Your task to perform on an android device: See recent photos Image 0: 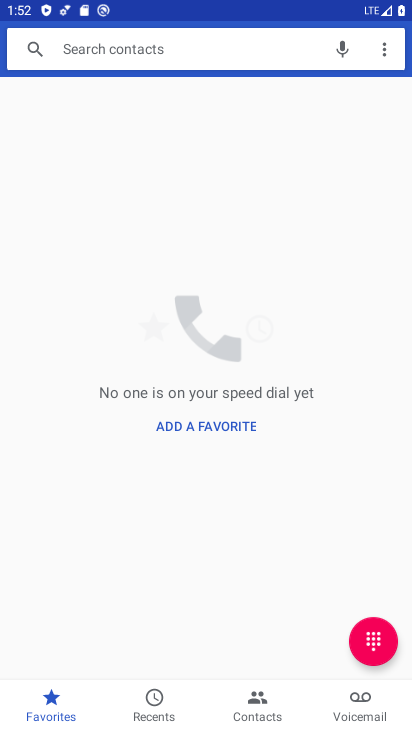
Step 0: press back button
Your task to perform on an android device: See recent photos Image 1: 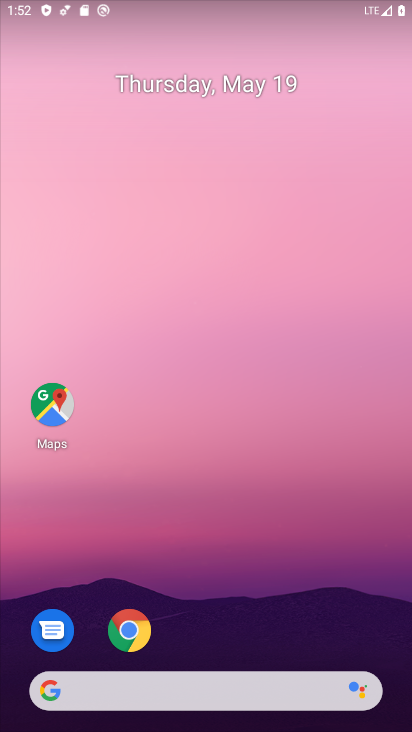
Step 1: drag from (252, 545) to (208, 10)
Your task to perform on an android device: See recent photos Image 2: 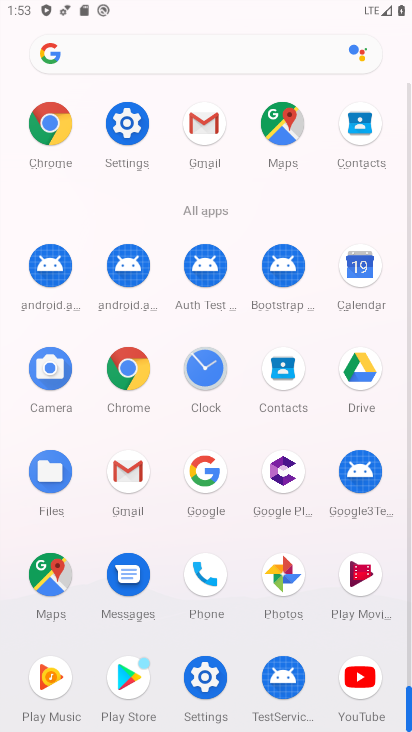
Step 2: click (286, 575)
Your task to perform on an android device: See recent photos Image 3: 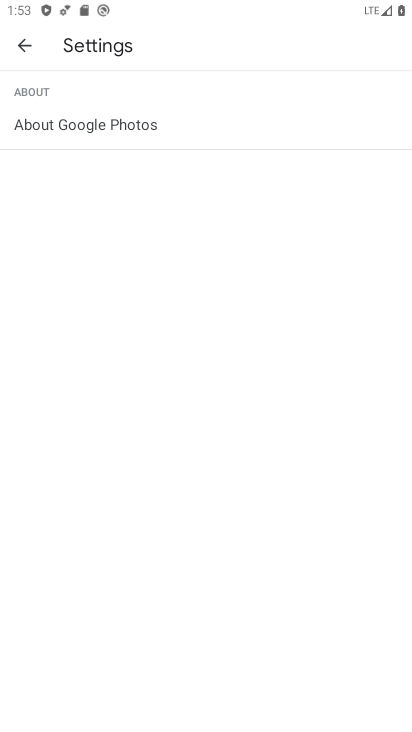
Step 3: click (11, 45)
Your task to perform on an android device: See recent photos Image 4: 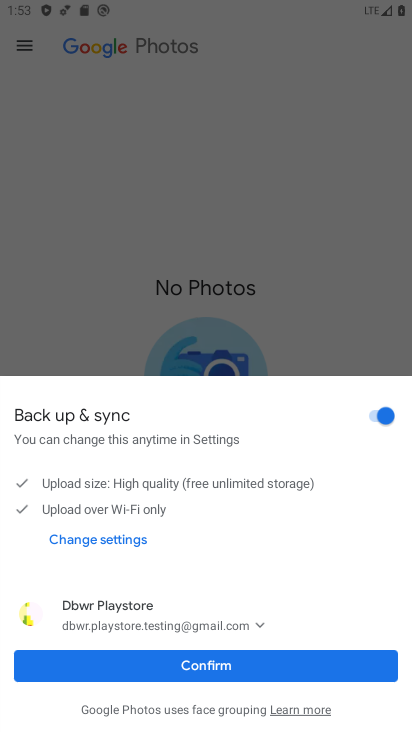
Step 4: click (182, 659)
Your task to perform on an android device: See recent photos Image 5: 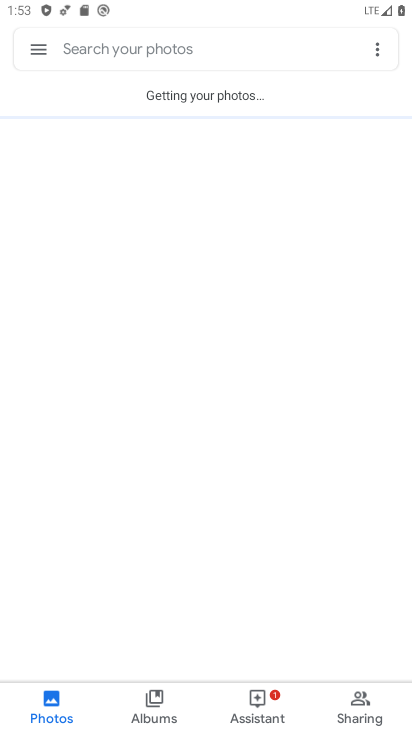
Step 5: task complete